Your task to perform on an android device: Check the news Image 0: 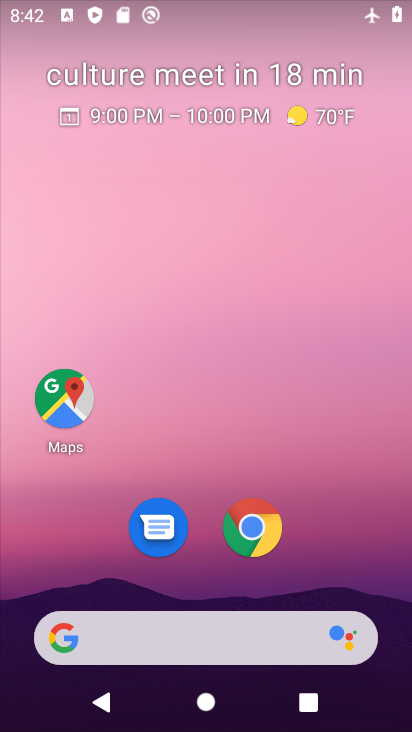
Step 0: drag from (188, 546) to (230, 231)
Your task to perform on an android device: Check the news Image 1: 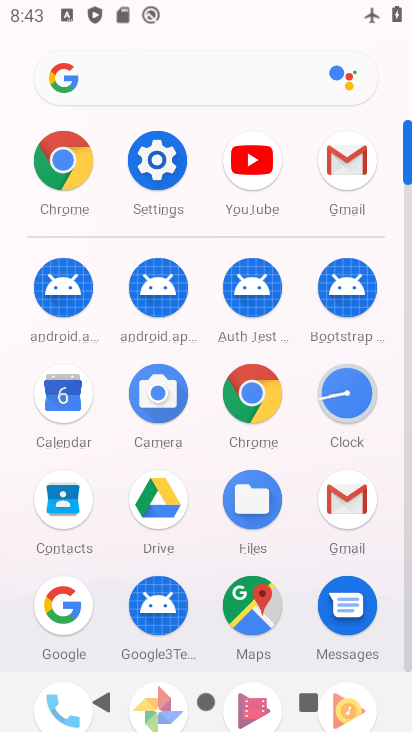
Step 1: click (58, 619)
Your task to perform on an android device: Check the news Image 2: 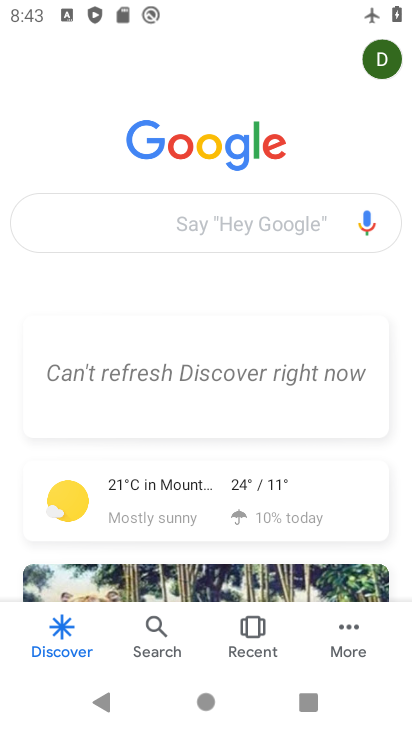
Step 2: click (226, 237)
Your task to perform on an android device: Check the news Image 3: 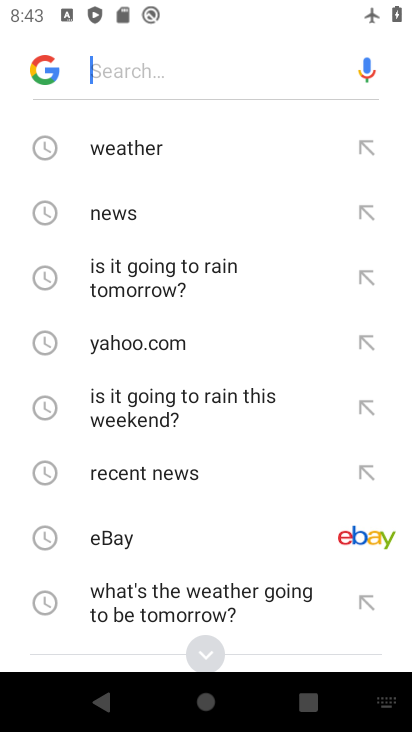
Step 3: click (242, 213)
Your task to perform on an android device: Check the news Image 4: 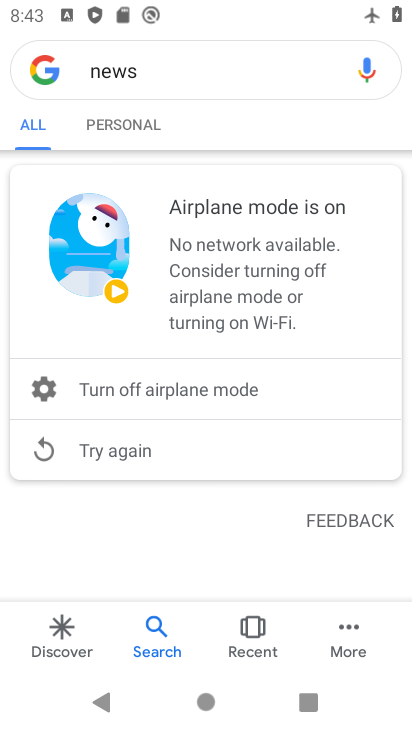
Step 4: task complete